Your task to perform on an android device: Open Chrome and go to settings Image 0: 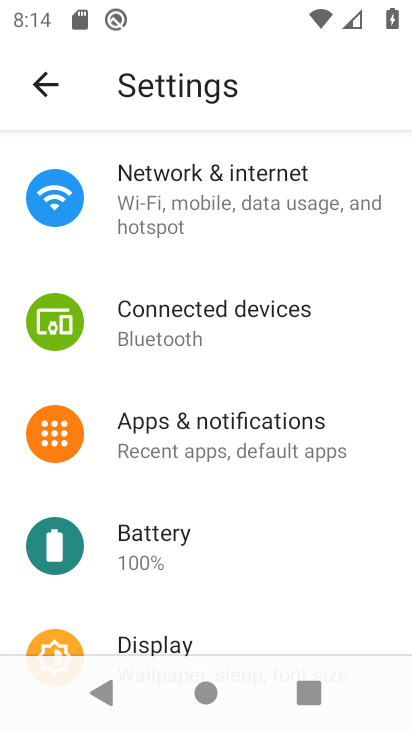
Step 0: press home button
Your task to perform on an android device: Open Chrome and go to settings Image 1: 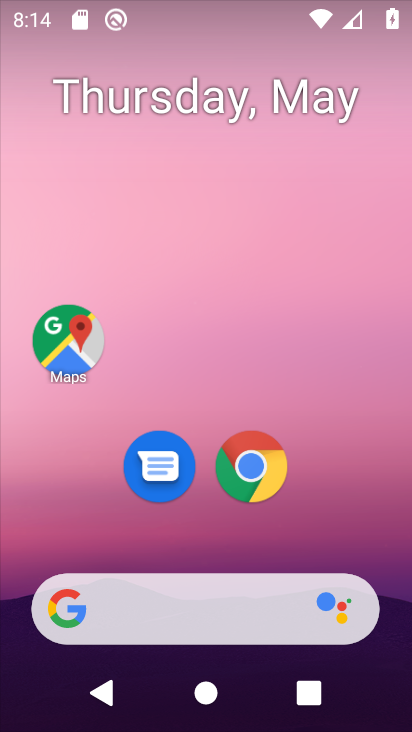
Step 1: click (245, 462)
Your task to perform on an android device: Open Chrome and go to settings Image 2: 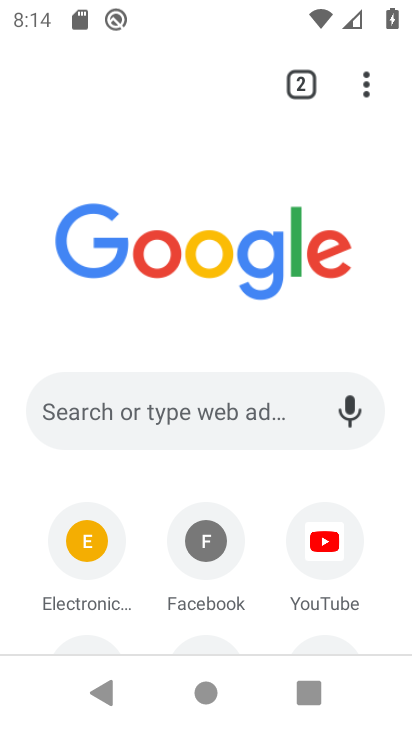
Step 2: click (361, 91)
Your task to perform on an android device: Open Chrome and go to settings Image 3: 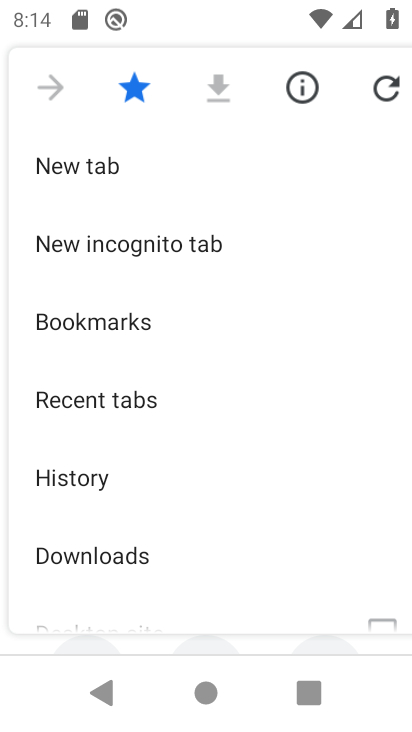
Step 3: drag from (160, 387) to (156, 214)
Your task to perform on an android device: Open Chrome and go to settings Image 4: 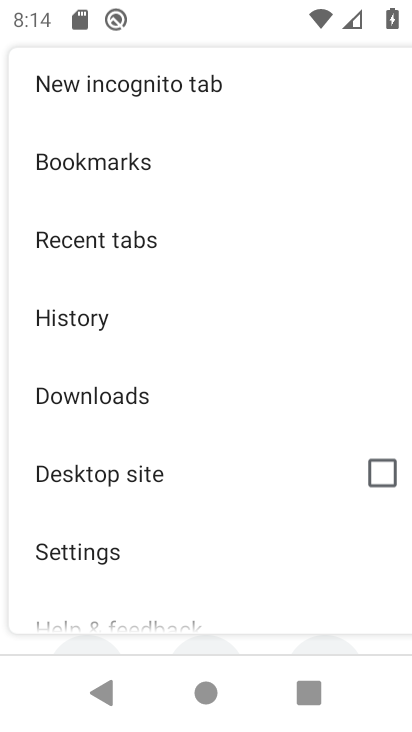
Step 4: click (117, 532)
Your task to perform on an android device: Open Chrome and go to settings Image 5: 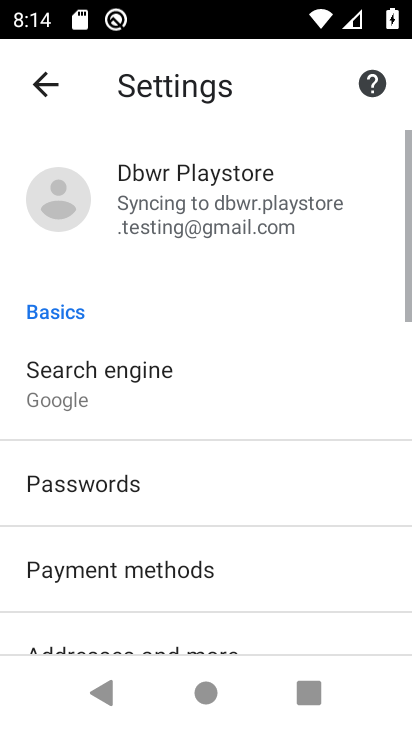
Step 5: task complete